Your task to perform on an android device: turn off location Image 0: 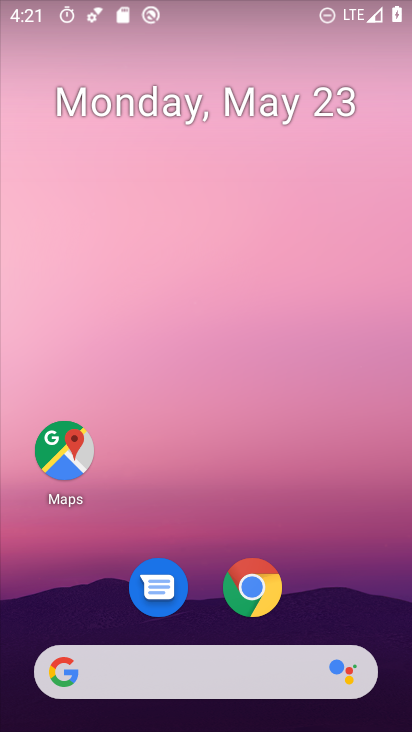
Step 0: drag from (208, 607) to (212, 90)
Your task to perform on an android device: turn off location Image 1: 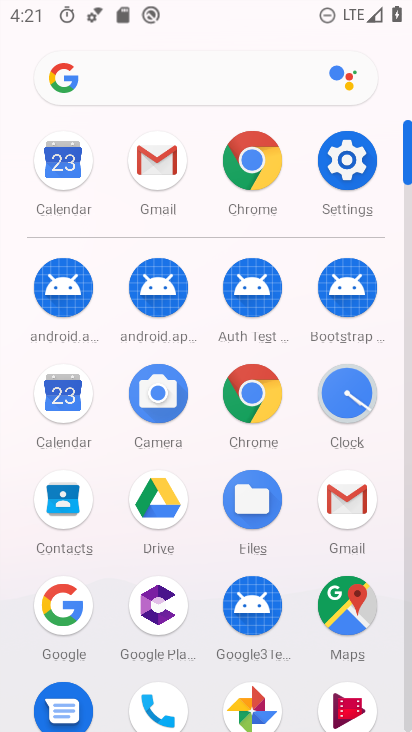
Step 1: click (353, 146)
Your task to perform on an android device: turn off location Image 2: 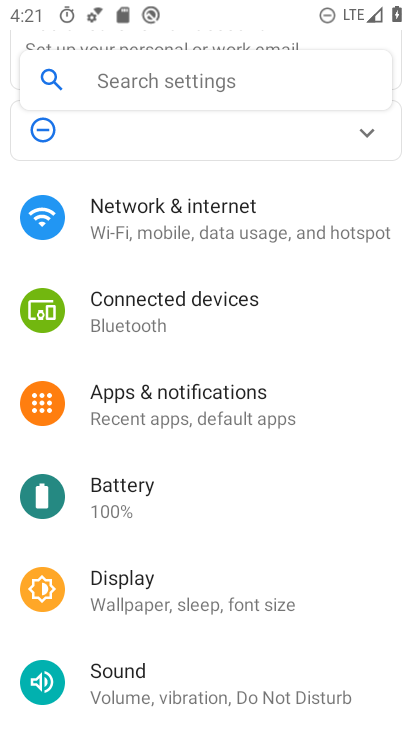
Step 2: drag from (189, 615) to (262, 231)
Your task to perform on an android device: turn off location Image 3: 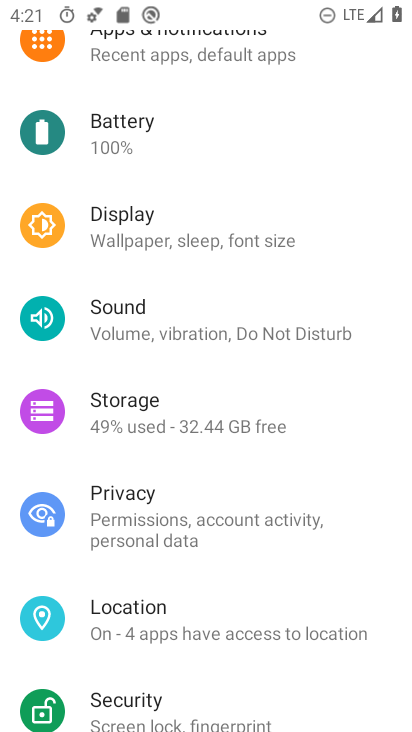
Step 3: click (184, 628)
Your task to perform on an android device: turn off location Image 4: 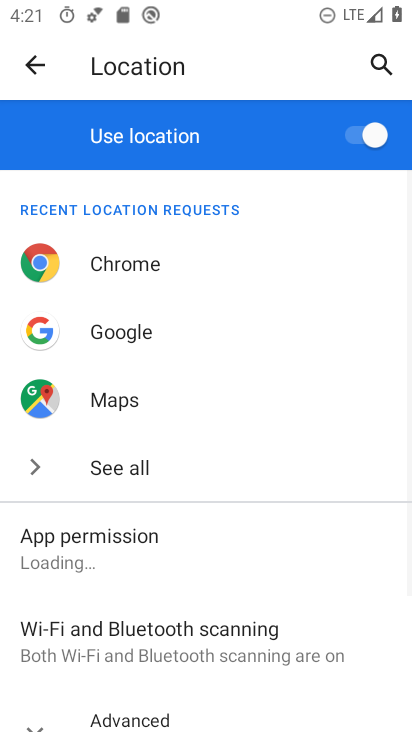
Step 4: click (333, 130)
Your task to perform on an android device: turn off location Image 5: 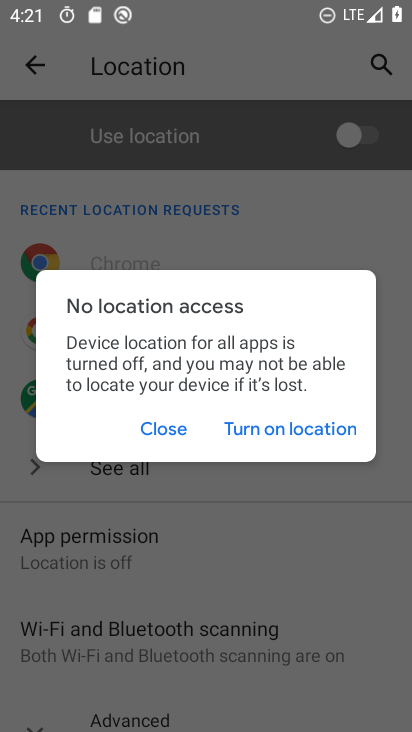
Step 5: click (166, 432)
Your task to perform on an android device: turn off location Image 6: 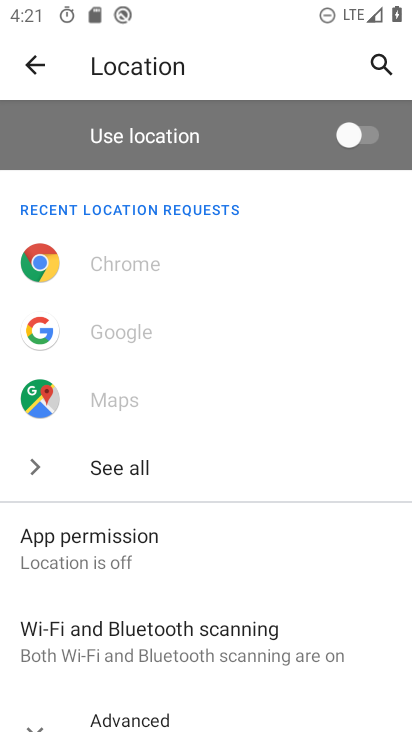
Step 6: task complete